Your task to perform on an android device: Go to notification settings Image 0: 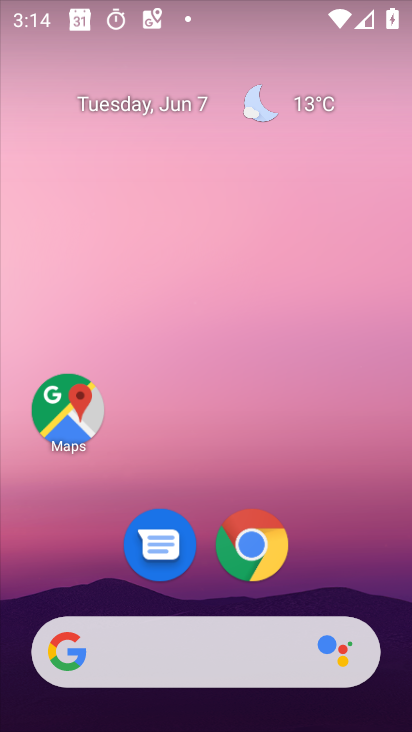
Step 0: drag from (341, 557) to (235, 54)
Your task to perform on an android device: Go to notification settings Image 1: 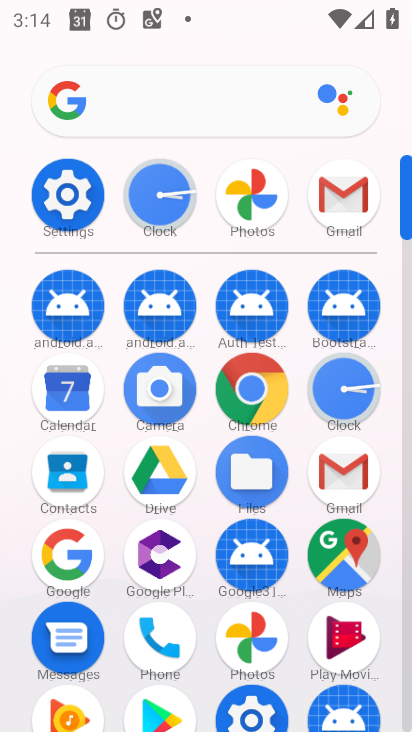
Step 1: click (61, 185)
Your task to perform on an android device: Go to notification settings Image 2: 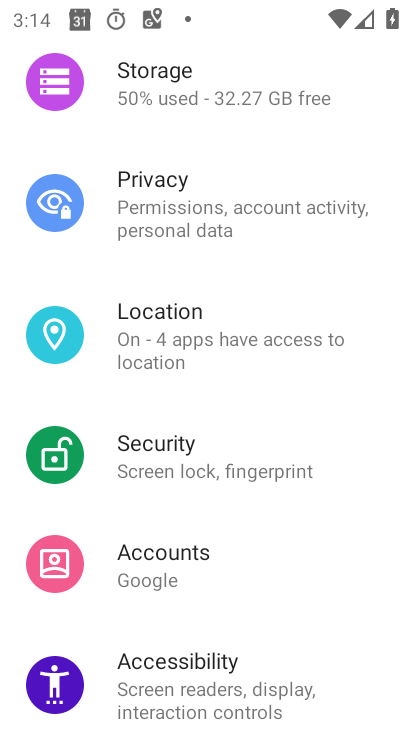
Step 2: drag from (265, 180) to (332, 716)
Your task to perform on an android device: Go to notification settings Image 3: 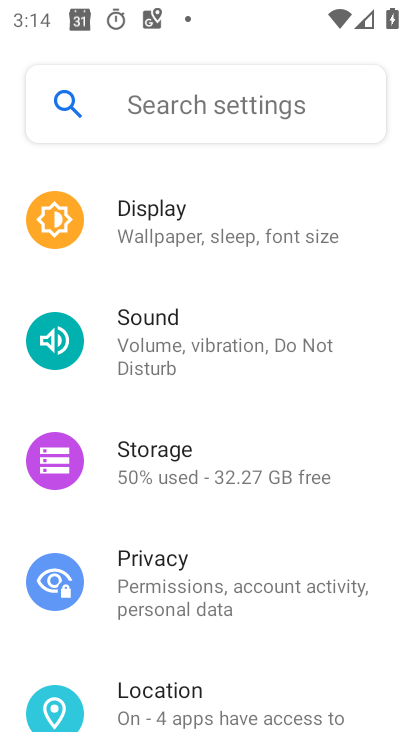
Step 3: drag from (251, 222) to (308, 689)
Your task to perform on an android device: Go to notification settings Image 4: 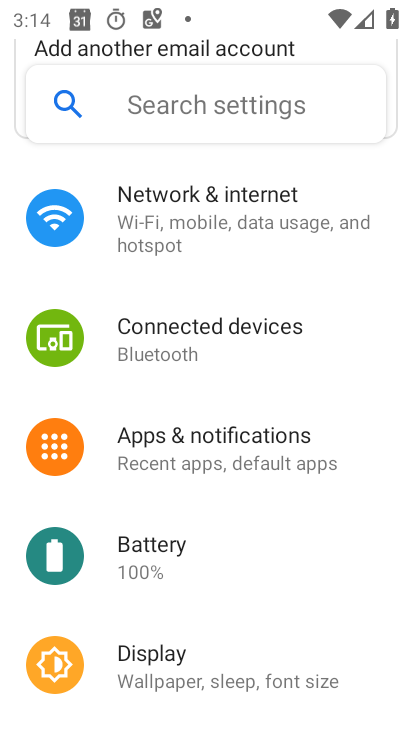
Step 4: click (263, 449)
Your task to perform on an android device: Go to notification settings Image 5: 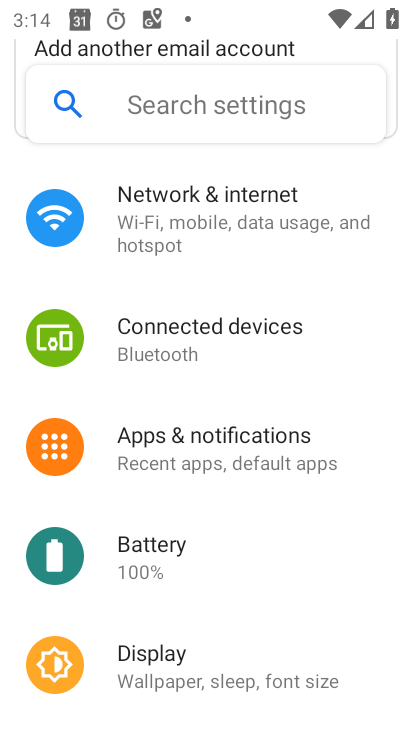
Step 5: task complete